Your task to perform on an android device: Turn on the flashlight Image 0: 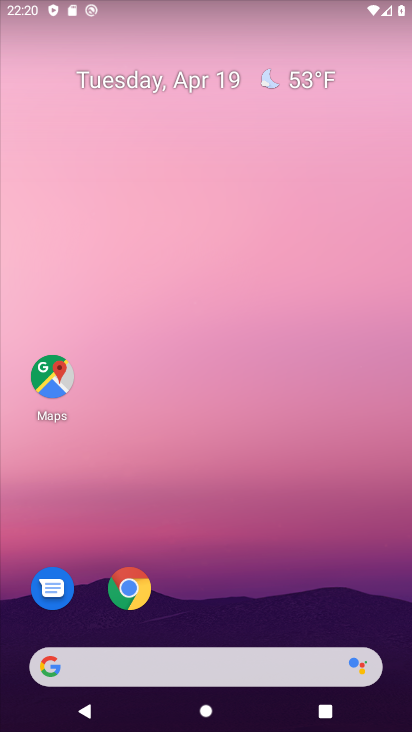
Step 0: drag from (145, 100) to (138, 618)
Your task to perform on an android device: Turn on the flashlight Image 1: 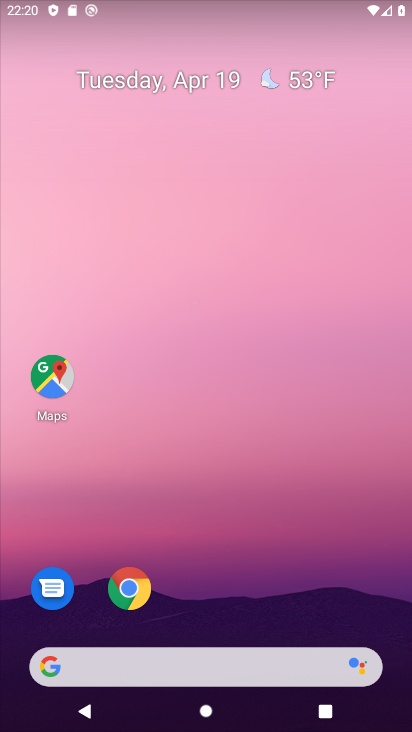
Step 1: task complete